Your task to perform on an android device: change alarm snooze length Image 0: 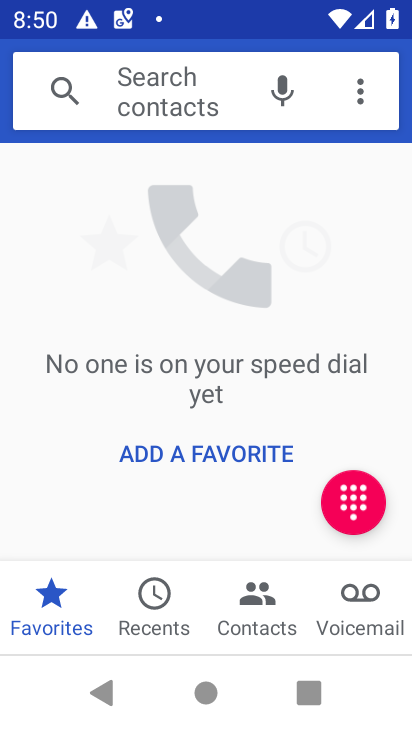
Step 0: press home button
Your task to perform on an android device: change alarm snooze length Image 1: 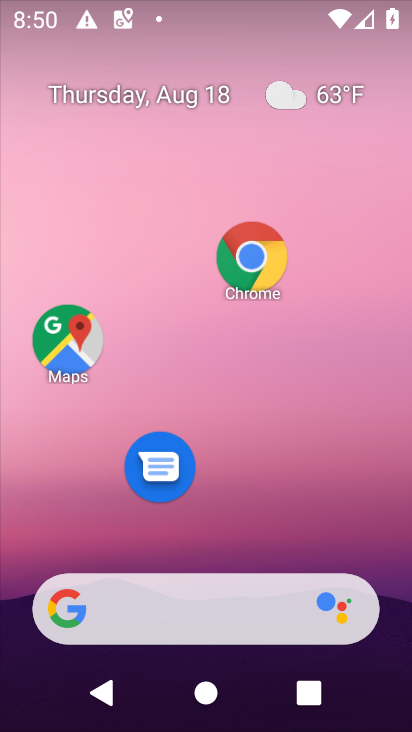
Step 1: task complete